Your task to perform on an android device: Go to wifi settings Image 0: 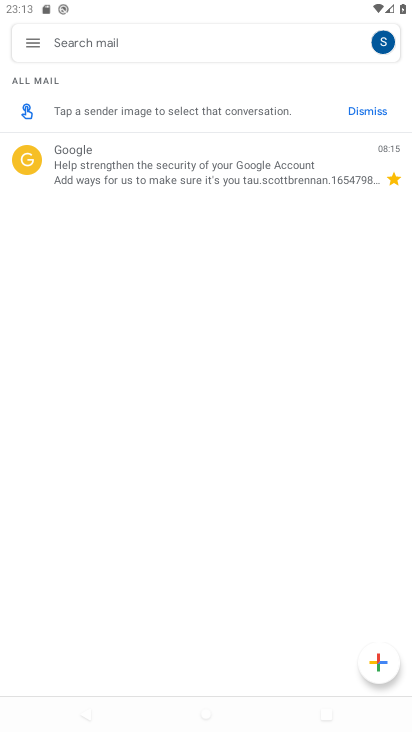
Step 0: press home button
Your task to perform on an android device: Go to wifi settings Image 1: 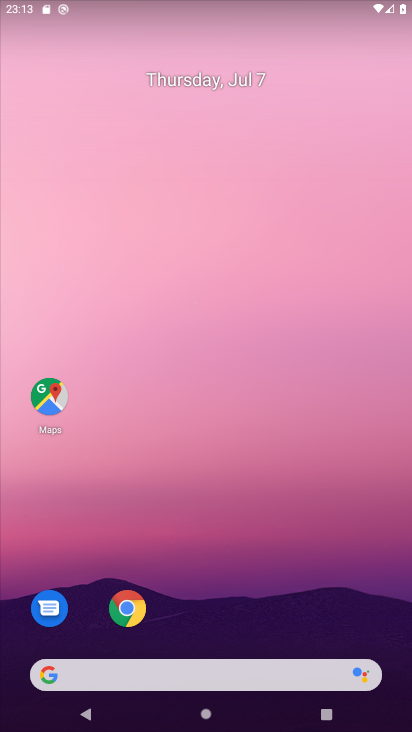
Step 1: drag from (272, 645) to (311, 207)
Your task to perform on an android device: Go to wifi settings Image 2: 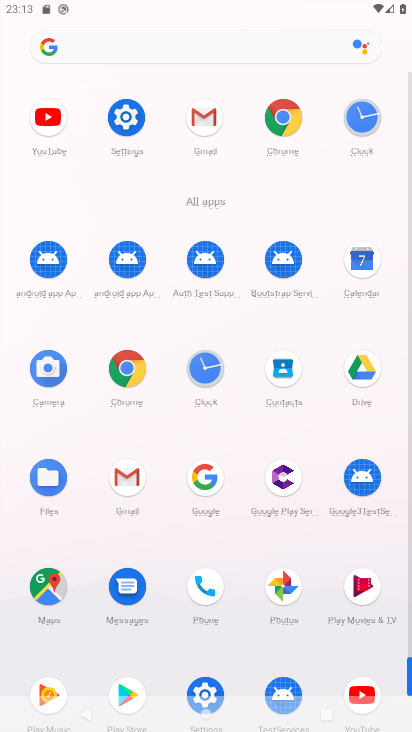
Step 2: click (118, 118)
Your task to perform on an android device: Go to wifi settings Image 3: 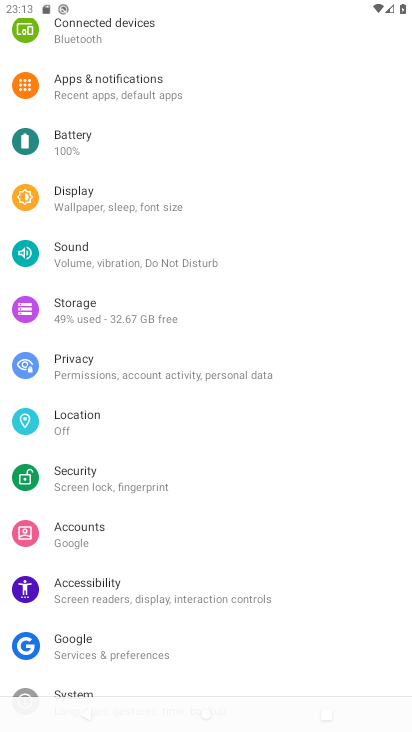
Step 3: drag from (125, 81) to (172, 546)
Your task to perform on an android device: Go to wifi settings Image 4: 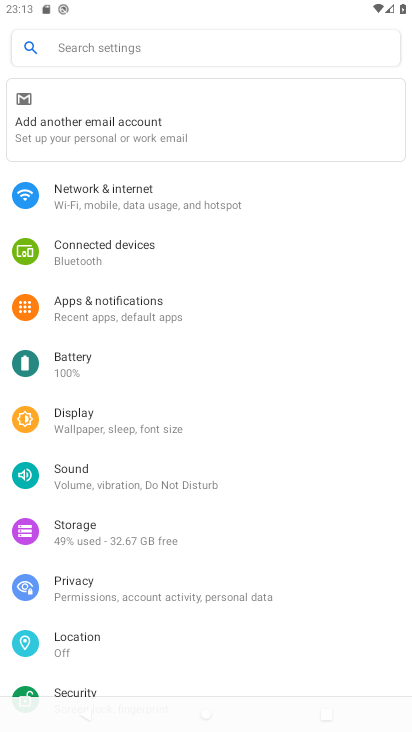
Step 4: click (150, 193)
Your task to perform on an android device: Go to wifi settings Image 5: 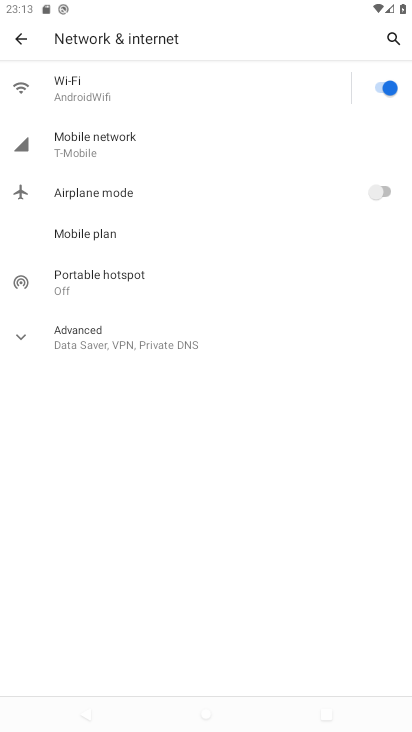
Step 5: click (137, 99)
Your task to perform on an android device: Go to wifi settings Image 6: 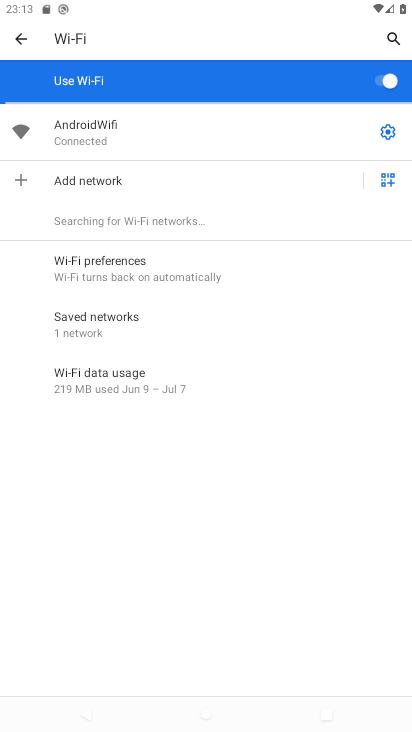
Step 6: task complete